Your task to perform on an android device: Go to ESPN.com Image 0: 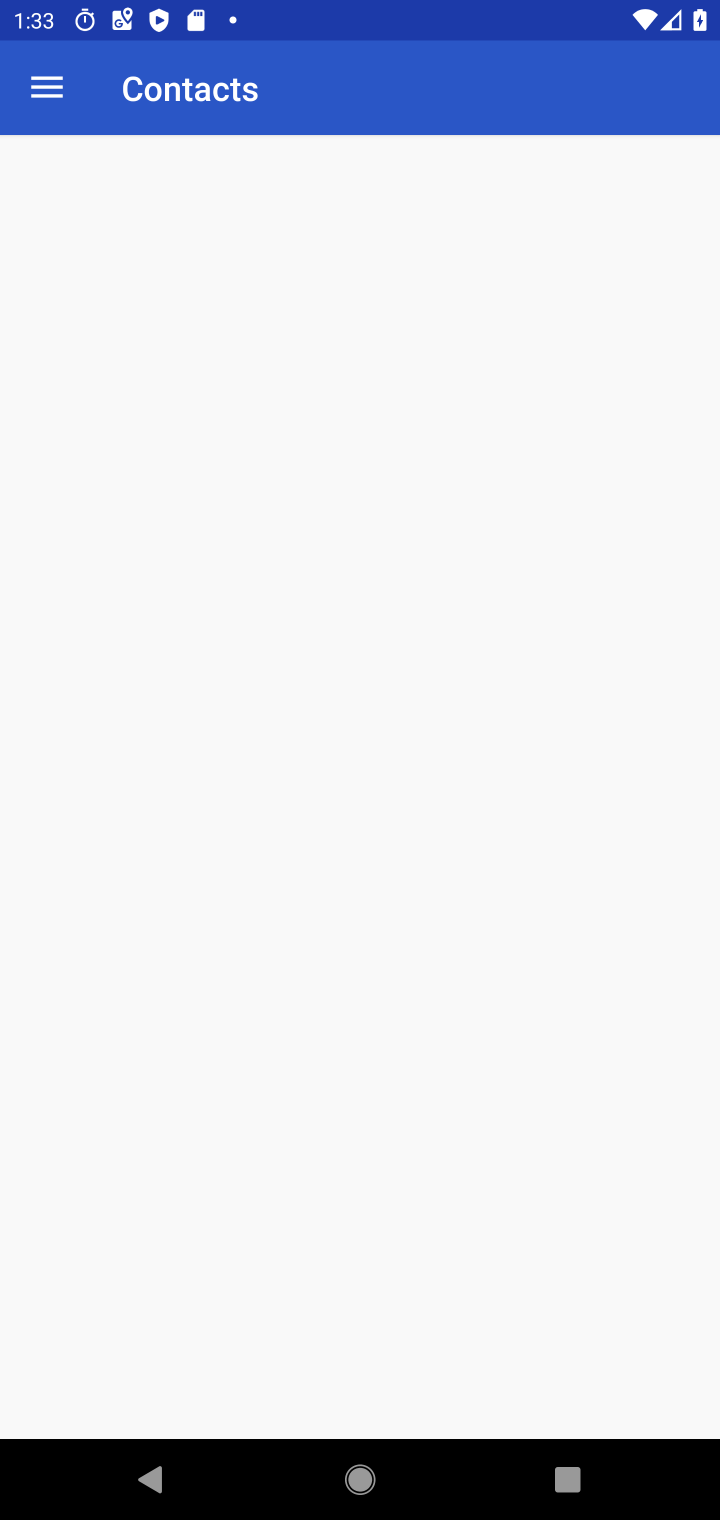
Step 0: press home button
Your task to perform on an android device: Go to ESPN.com Image 1: 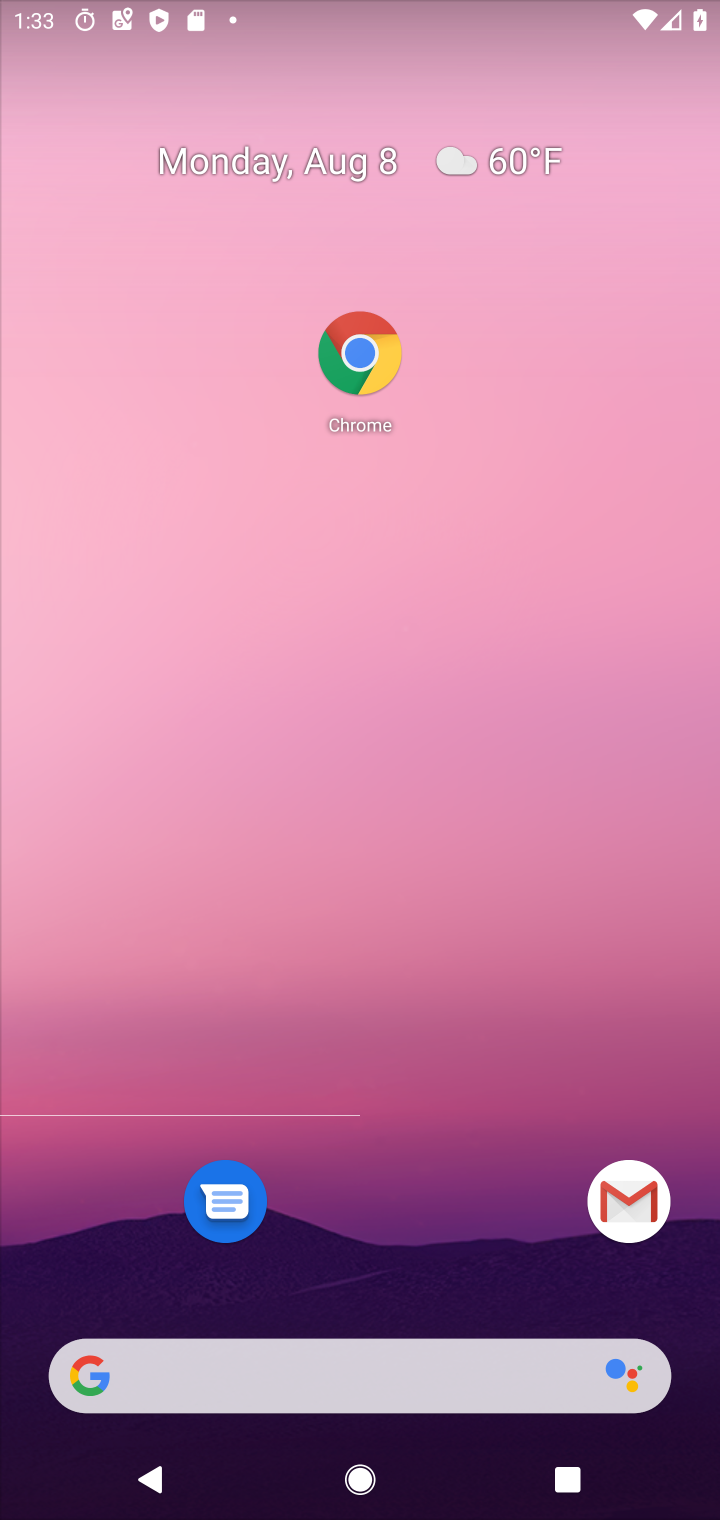
Step 1: drag from (357, 1374) to (256, 391)
Your task to perform on an android device: Go to ESPN.com Image 2: 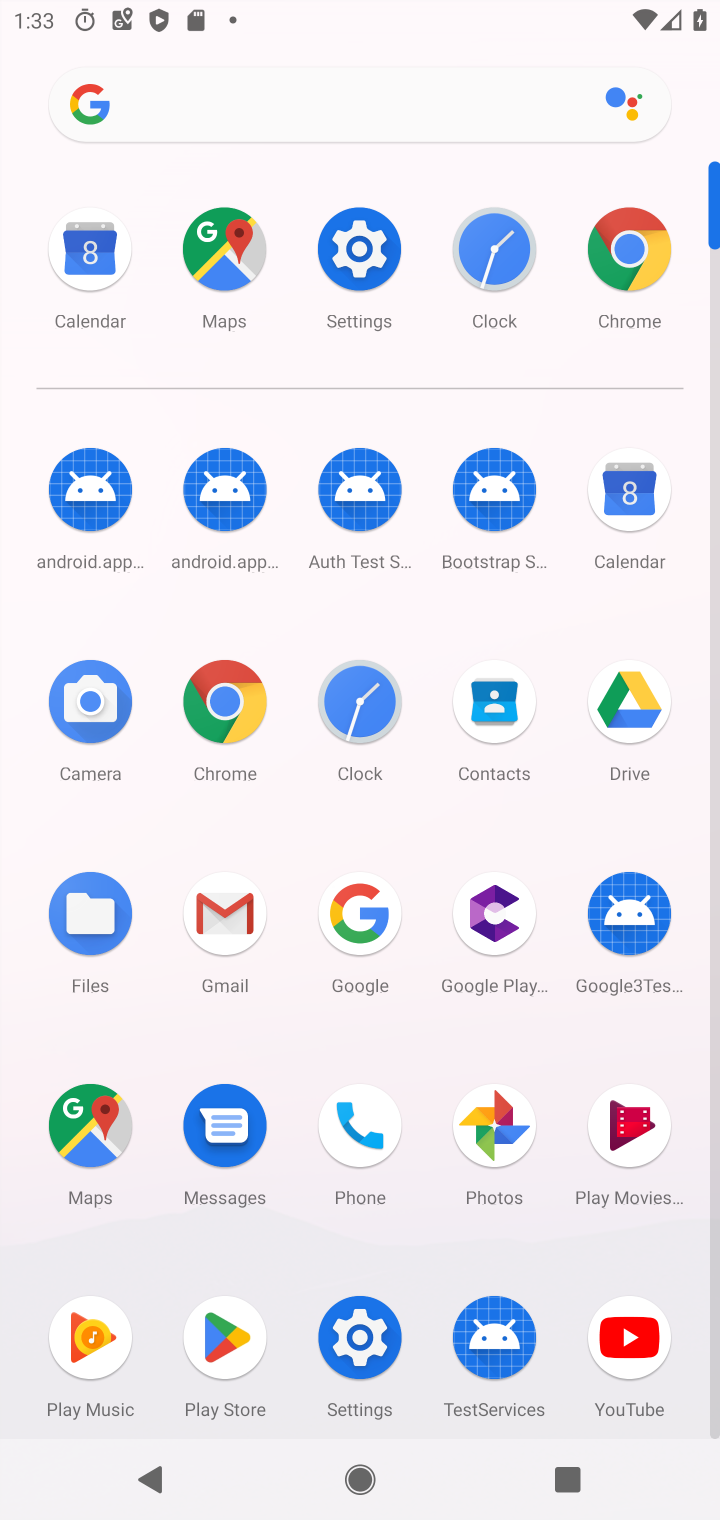
Step 2: click (593, 253)
Your task to perform on an android device: Go to ESPN.com Image 3: 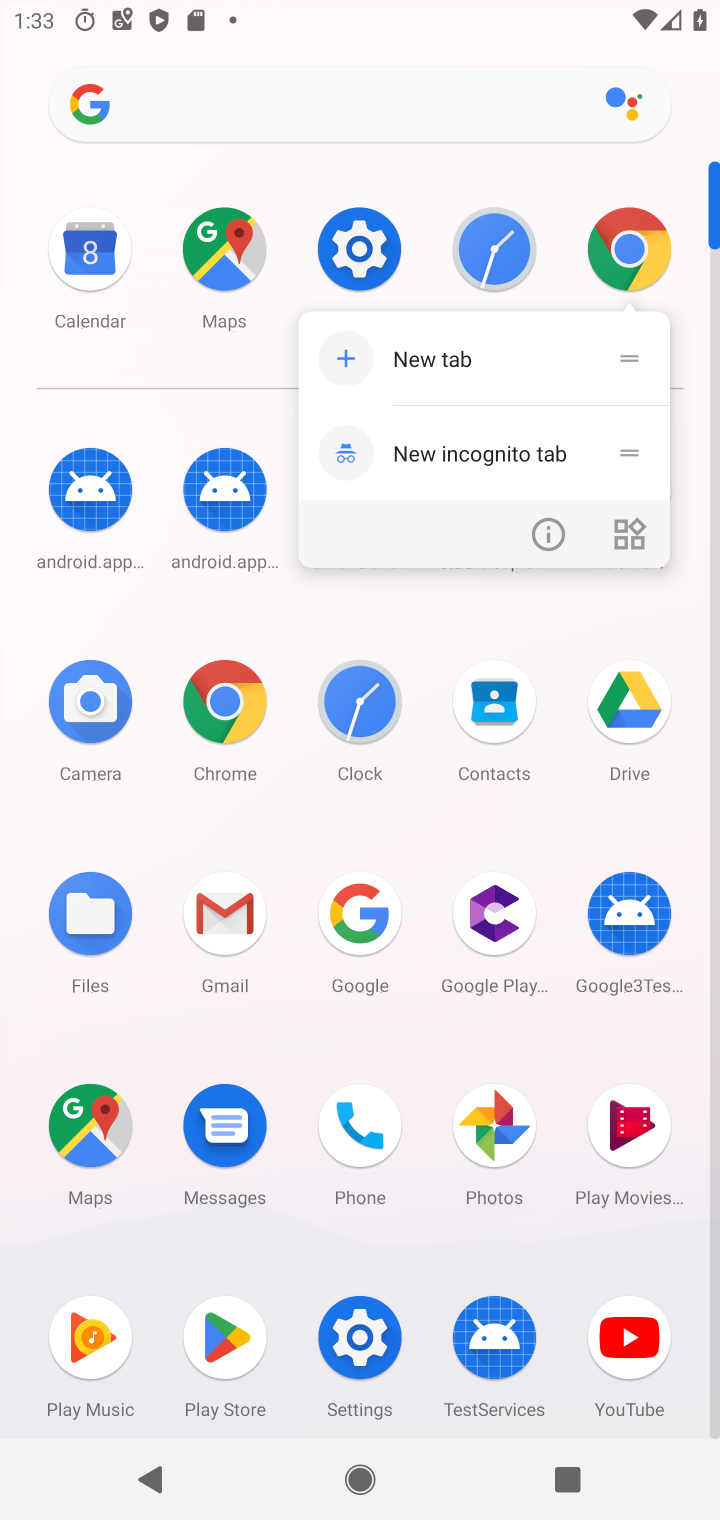
Step 3: click (623, 259)
Your task to perform on an android device: Go to ESPN.com Image 4: 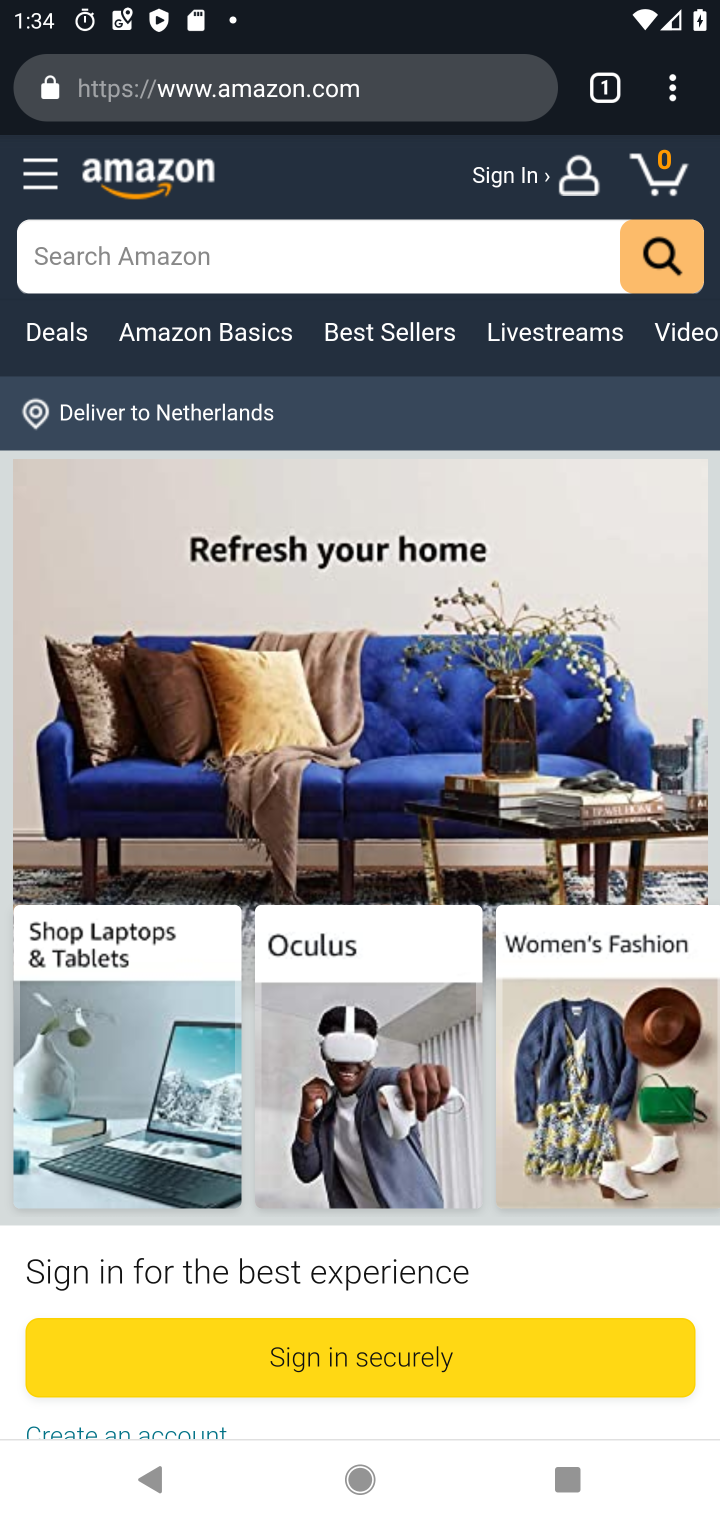
Step 4: click (217, 97)
Your task to perform on an android device: Go to ESPN.com Image 5: 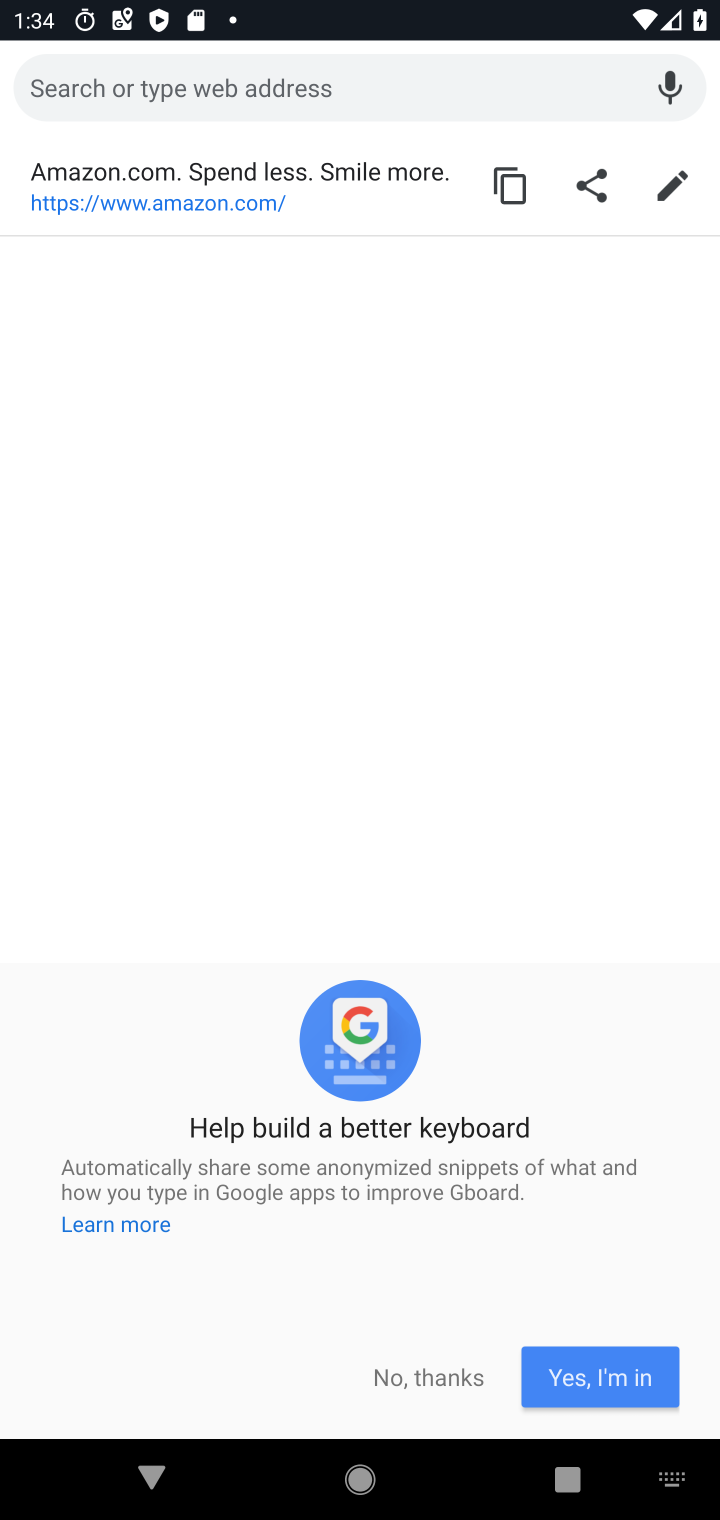
Step 5: click (398, 1366)
Your task to perform on an android device: Go to ESPN.com Image 6: 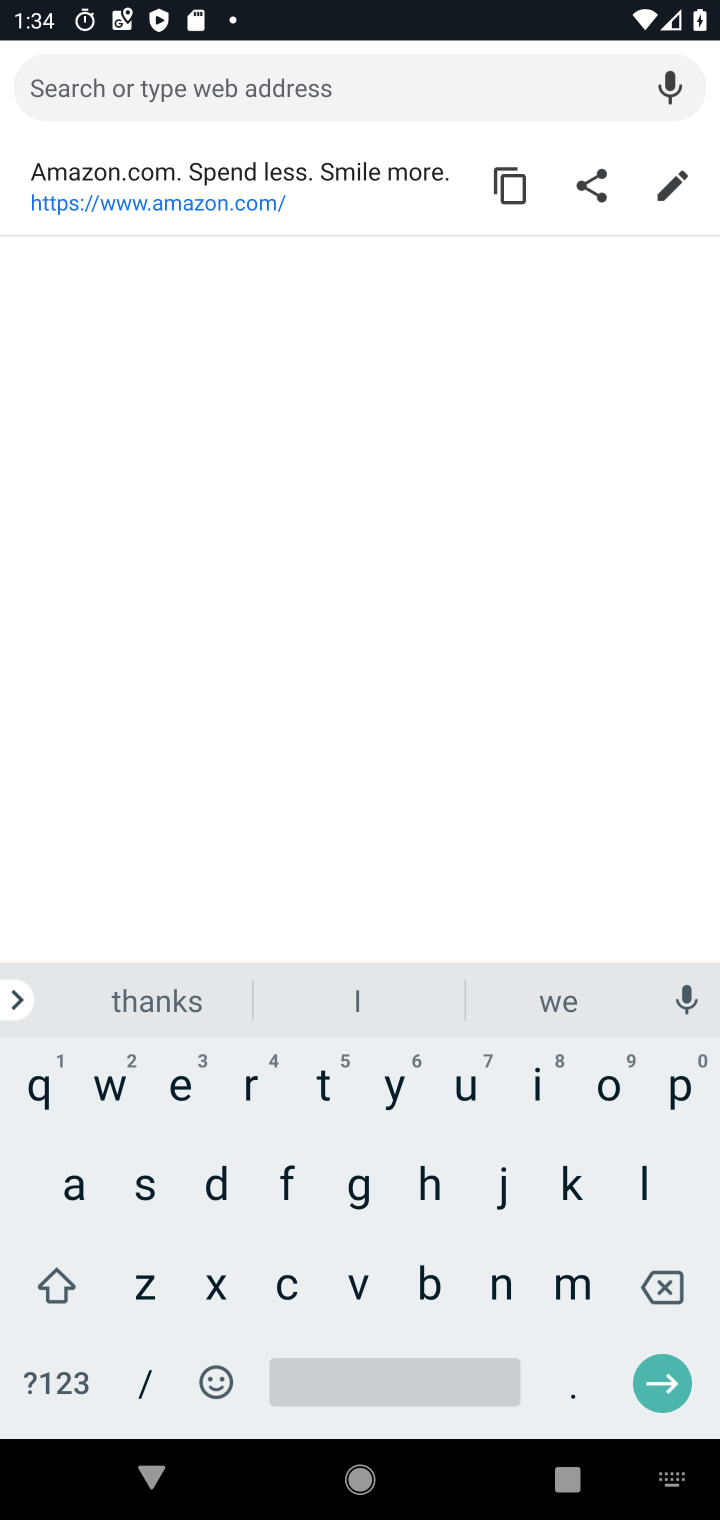
Step 6: click (186, 1089)
Your task to perform on an android device: Go to ESPN.com Image 7: 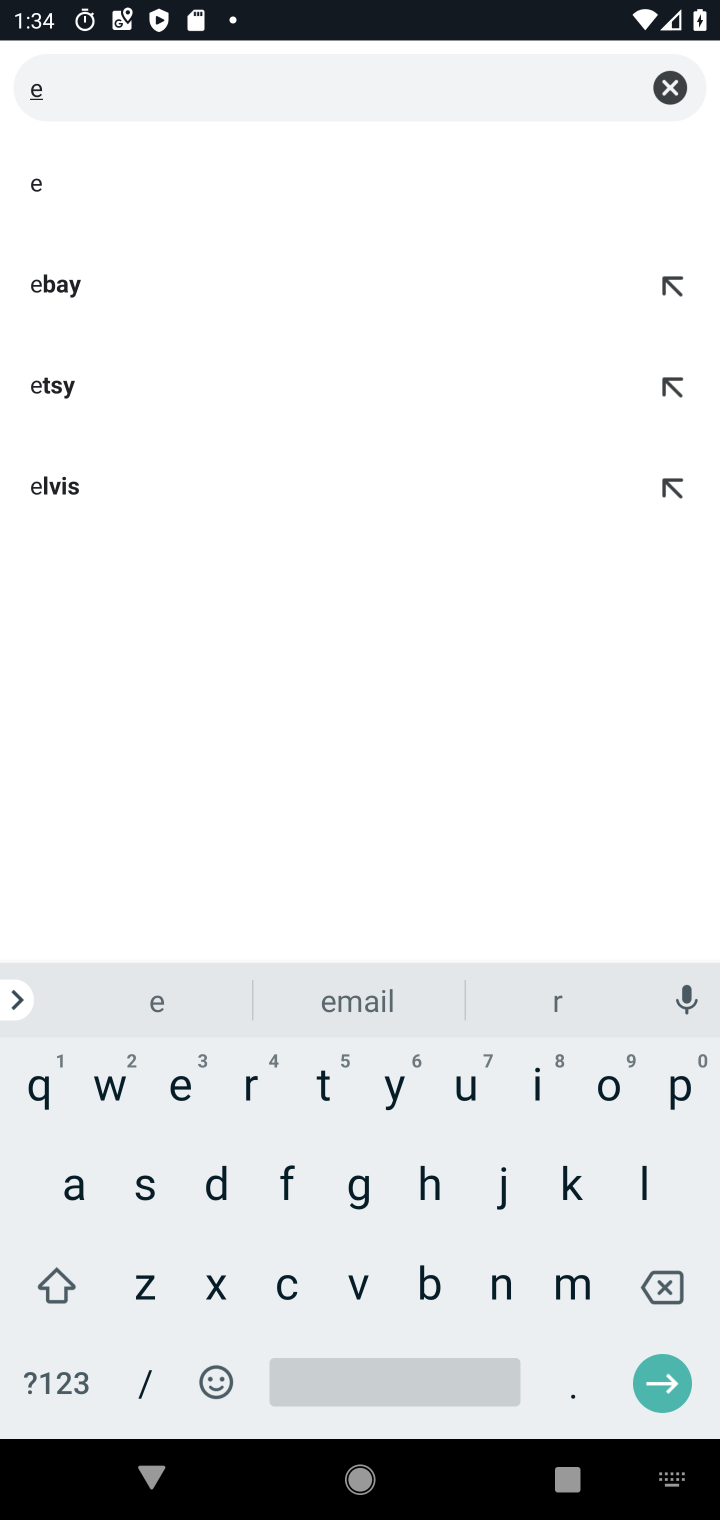
Step 7: click (141, 1186)
Your task to perform on an android device: Go to ESPN.com Image 8: 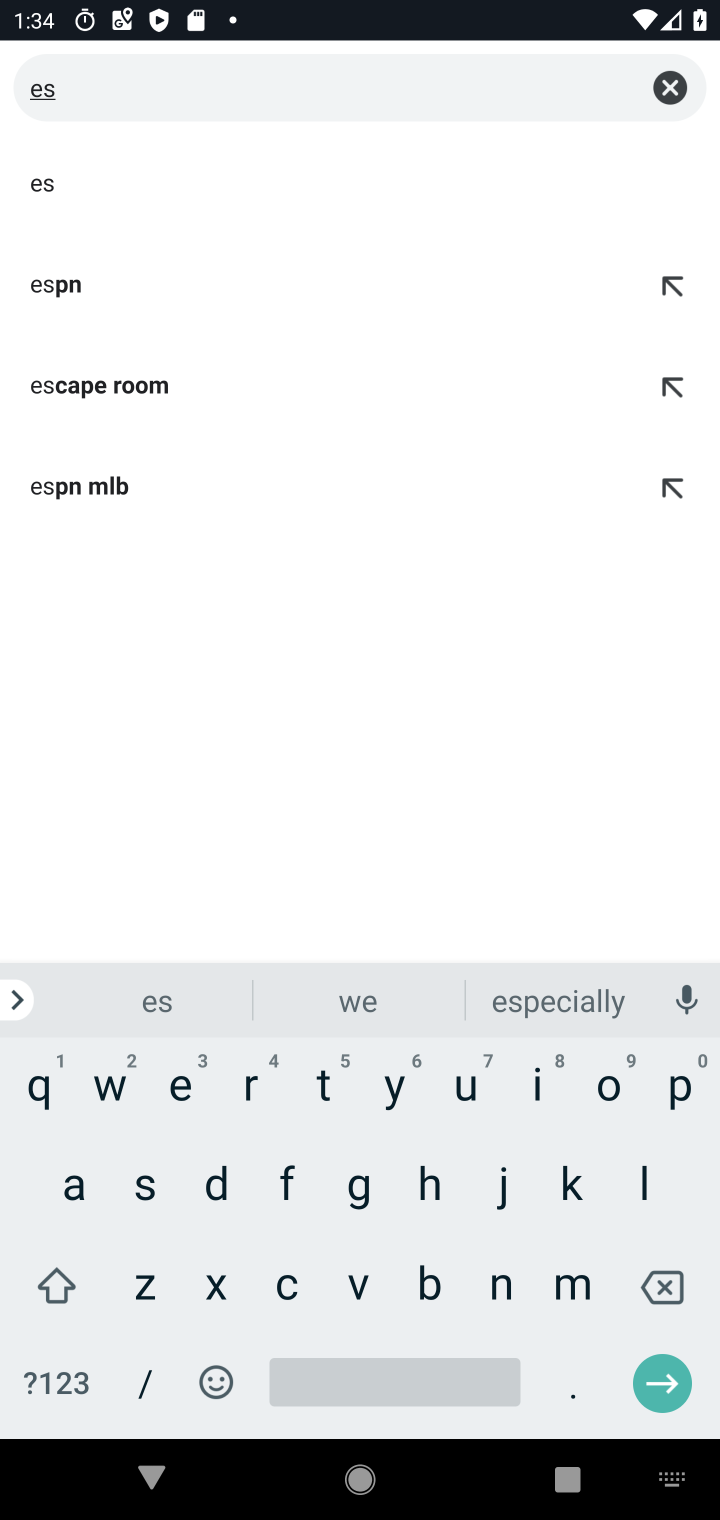
Step 8: click (79, 285)
Your task to perform on an android device: Go to ESPN.com Image 9: 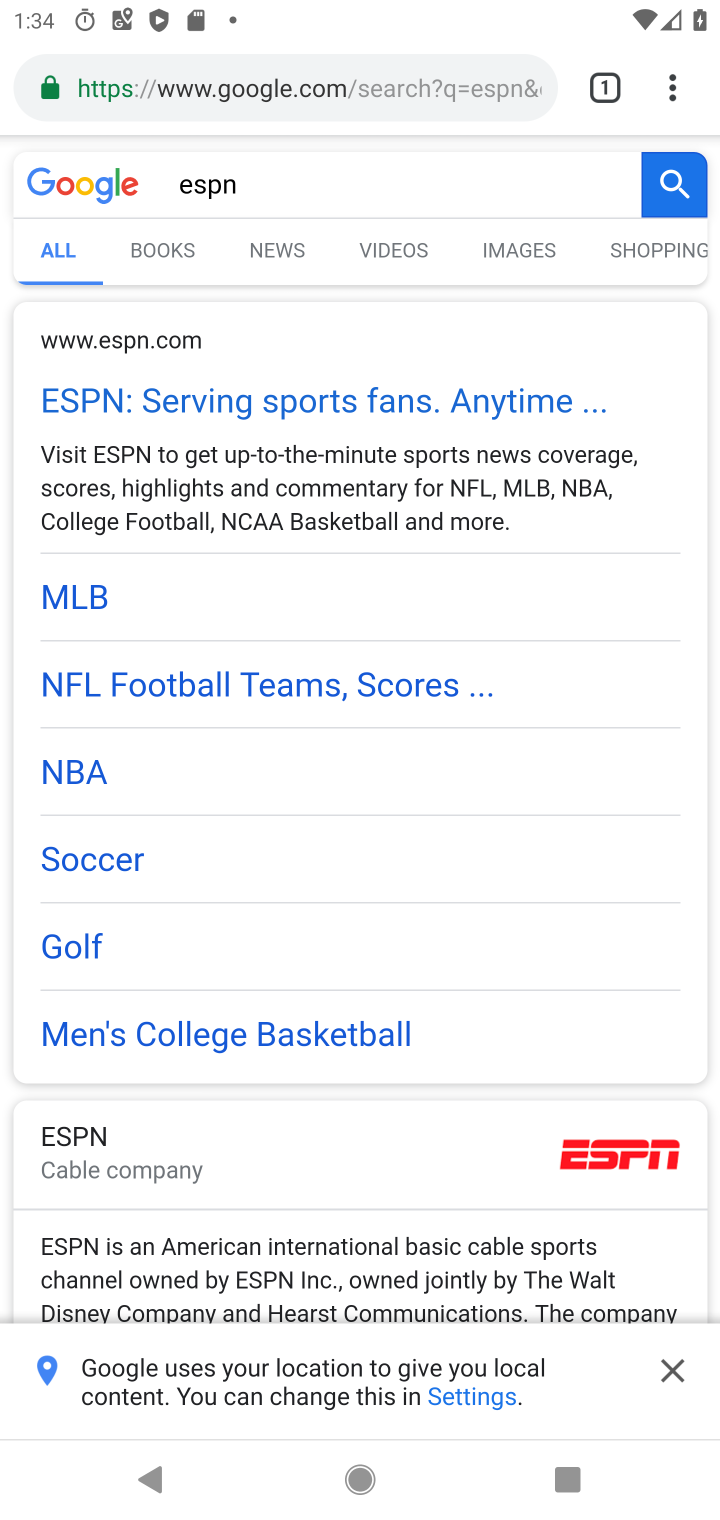
Step 9: click (209, 424)
Your task to perform on an android device: Go to ESPN.com Image 10: 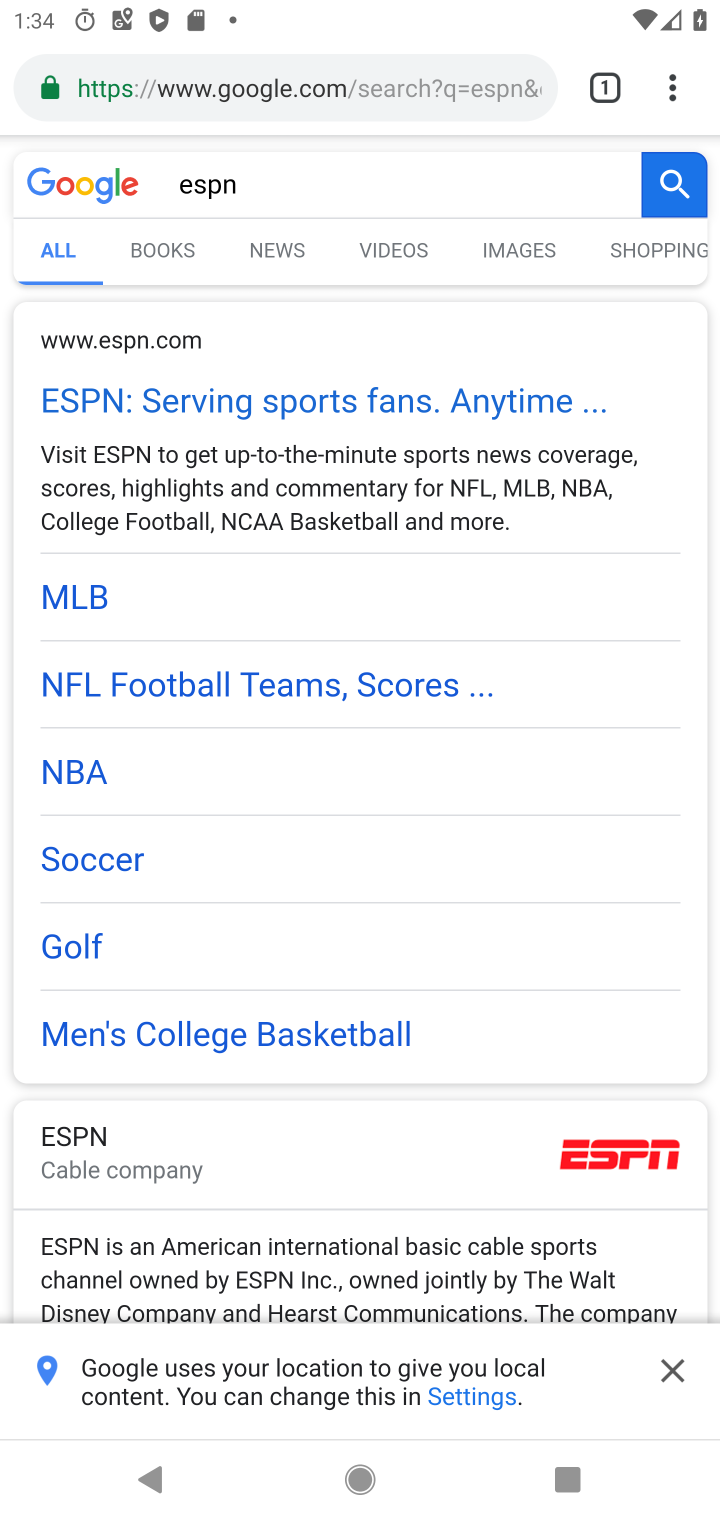
Step 10: click (188, 420)
Your task to perform on an android device: Go to ESPN.com Image 11: 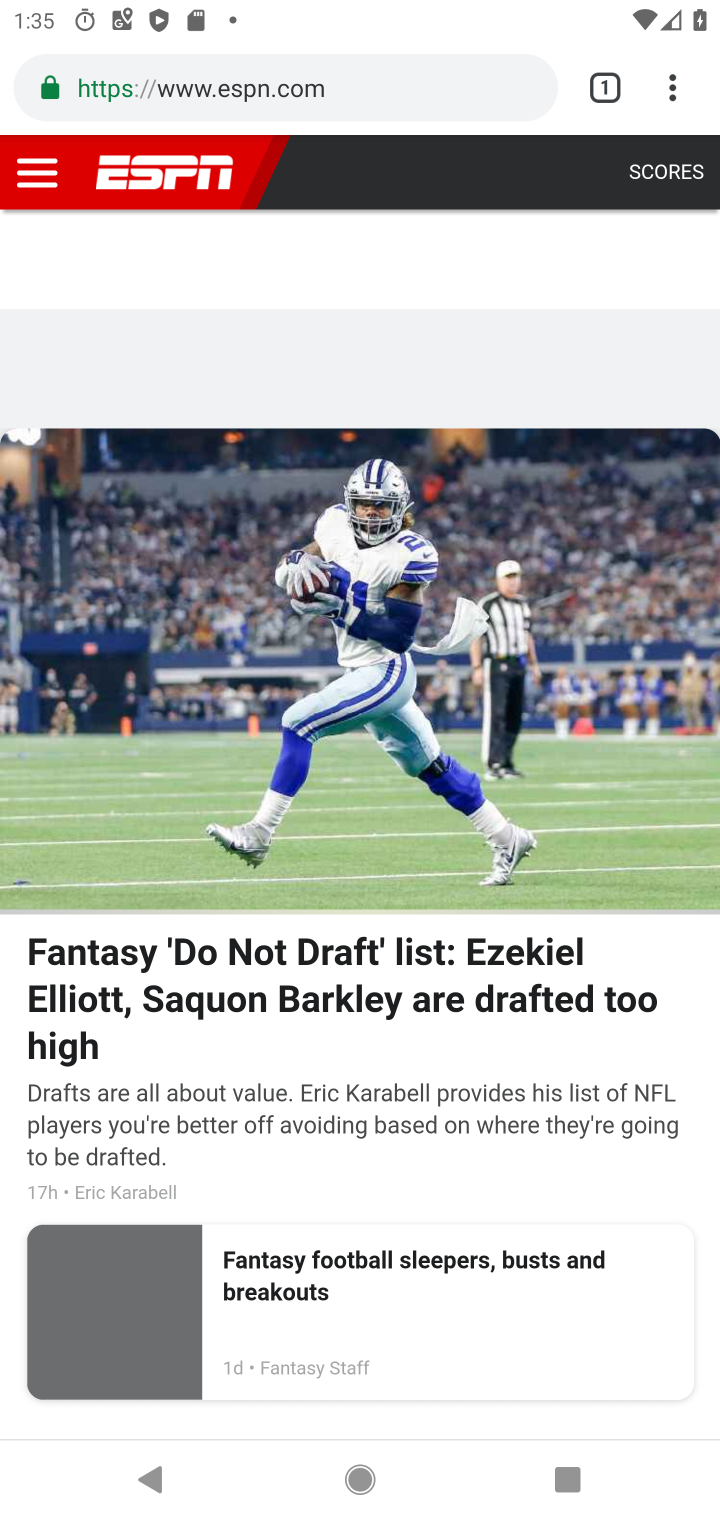
Step 11: task complete